Your task to perform on an android device: toggle location history Image 0: 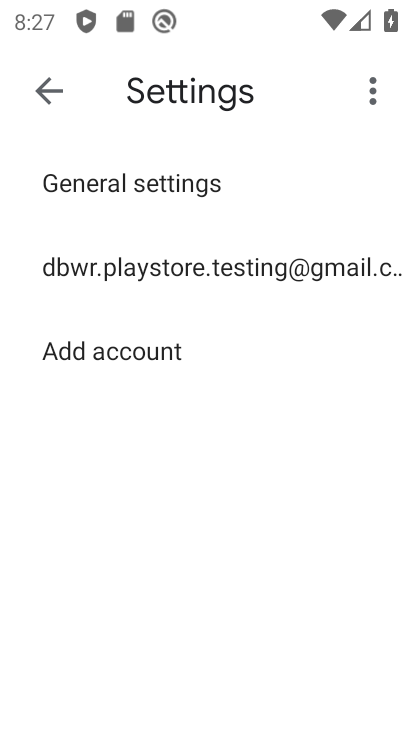
Step 0: press home button
Your task to perform on an android device: toggle location history Image 1: 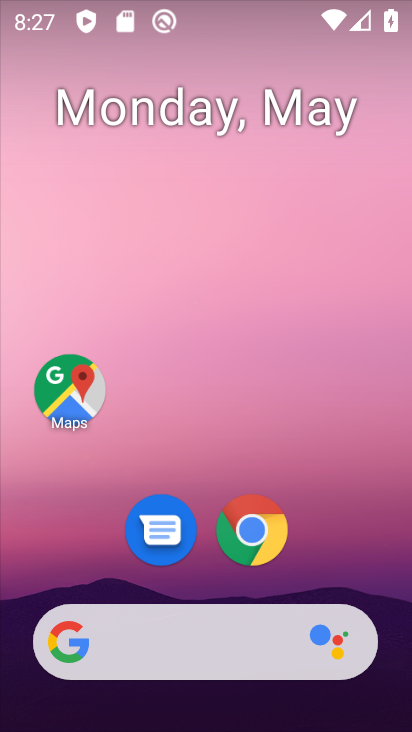
Step 1: click (86, 399)
Your task to perform on an android device: toggle location history Image 2: 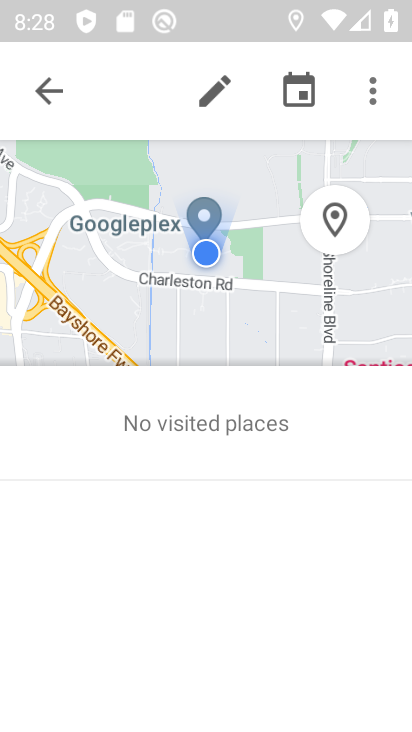
Step 2: click (364, 89)
Your task to perform on an android device: toggle location history Image 3: 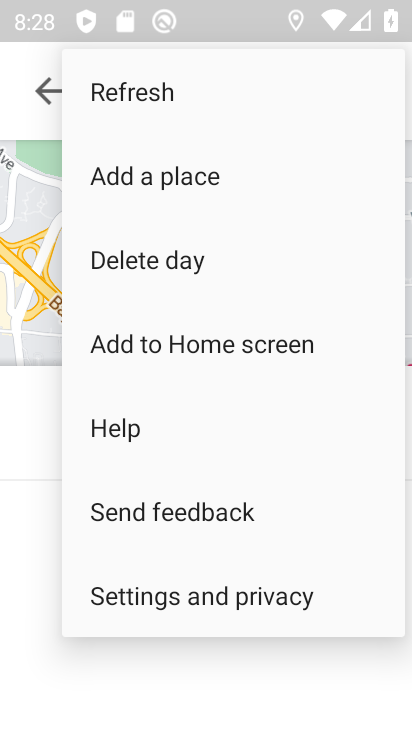
Step 3: click (204, 595)
Your task to perform on an android device: toggle location history Image 4: 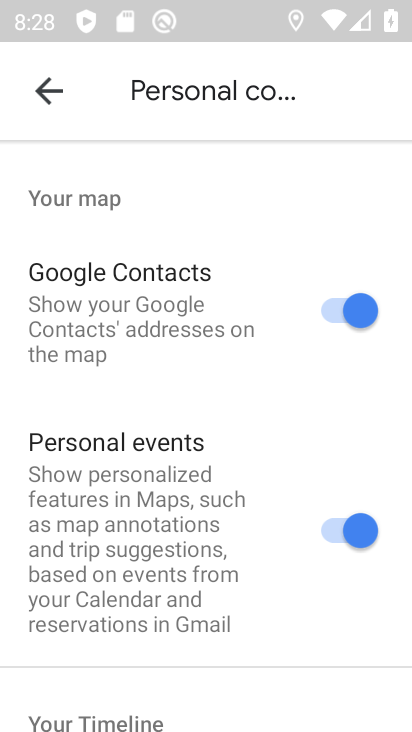
Step 4: drag from (236, 677) to (268, 56)
Your task to perform on an android device: toggle location history Image 5: 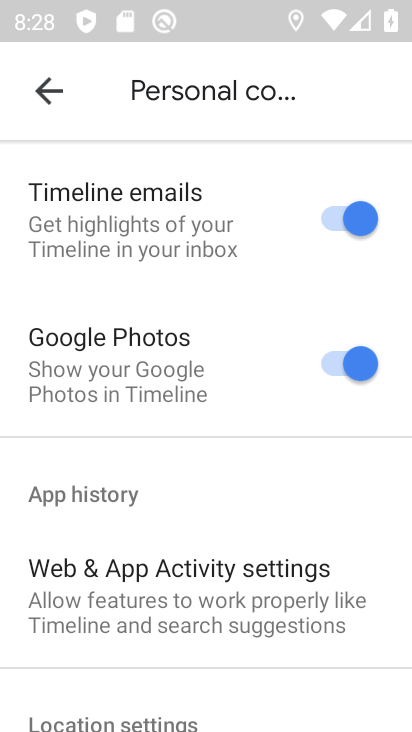
Step 5: drag from (193, 670) to (206, 127)
Your task to perform on an android device: toggle location history Image 6: 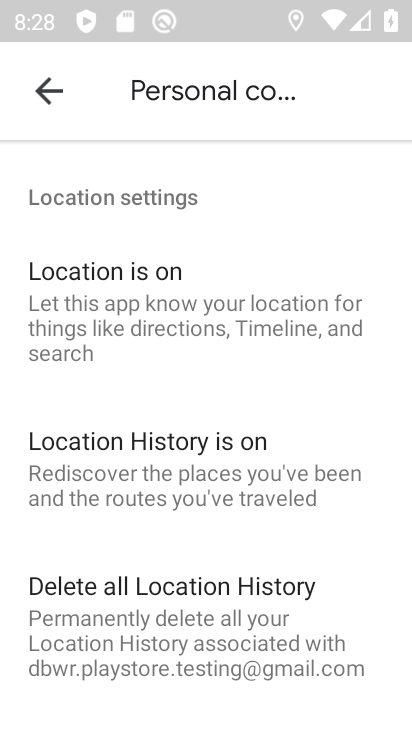
Step 6: click (188, 443)
Your task to perform on an android device: toggle location history Image 7: 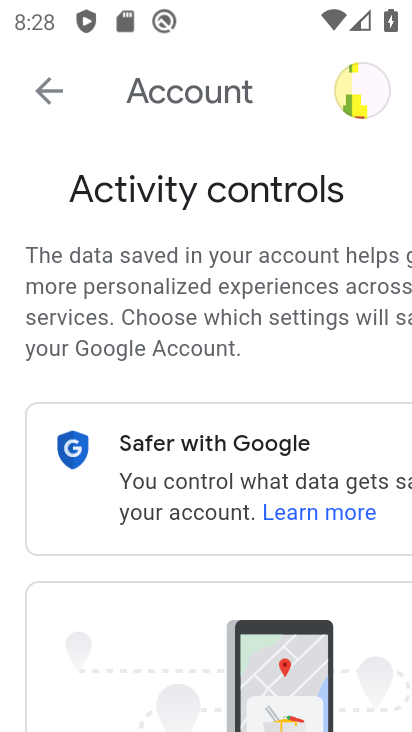
Step 7: drag from (225, 654) to (189, 120)
Your task to perform on an android device: toggle location history Image 8: 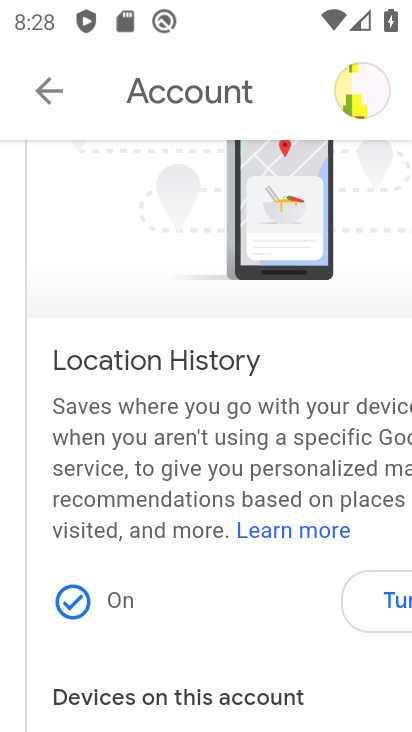
Step 8: click (388, 607)
Your task to perform on an android device: toggle location history Image 9: 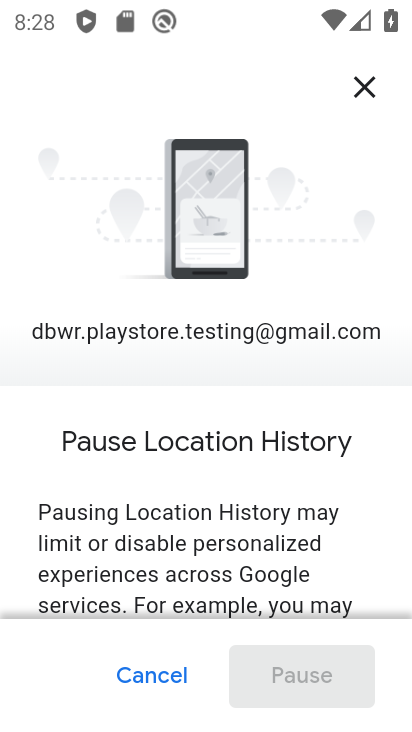
Step 9: drag from (342, 608) to (289, 70)
Your task to perform on an android device: toggle location history Image 10: 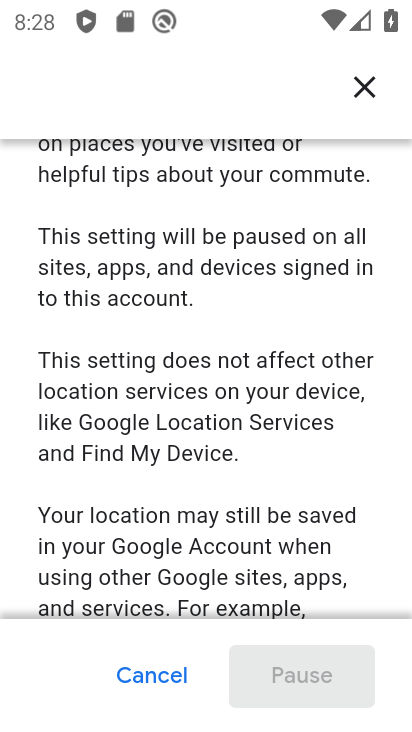
Step 10: drag from (253, 588) to (248, 139)
Your task to perform on an android device: toggle location history Image 11: 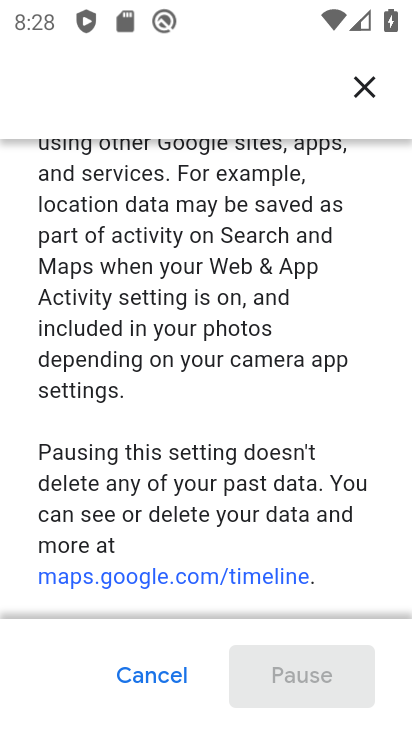
Step 11: drag from (304, 487) to (231, 83)
Your task to perform on an android device: toggle location history Image 12: 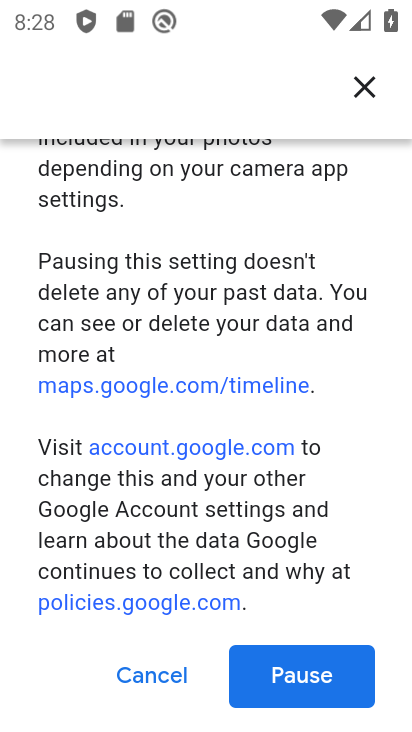
Step 12: click (300, 684)
Your task to perform on an android device: toggle location history Image 13: 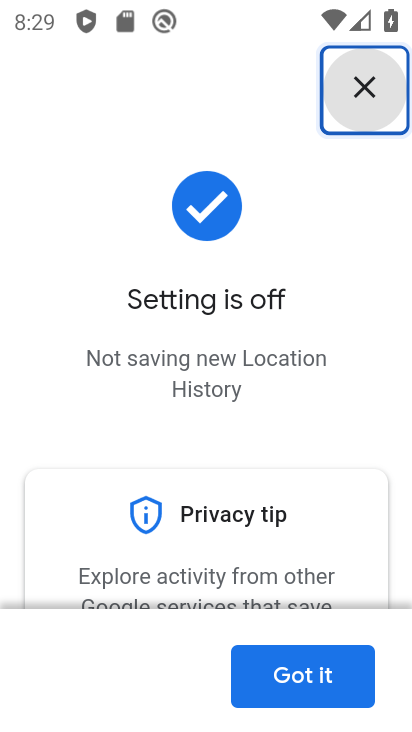
Step 13: click (300, 684)
Your task to perform on an android device: toggle location history Image 14: 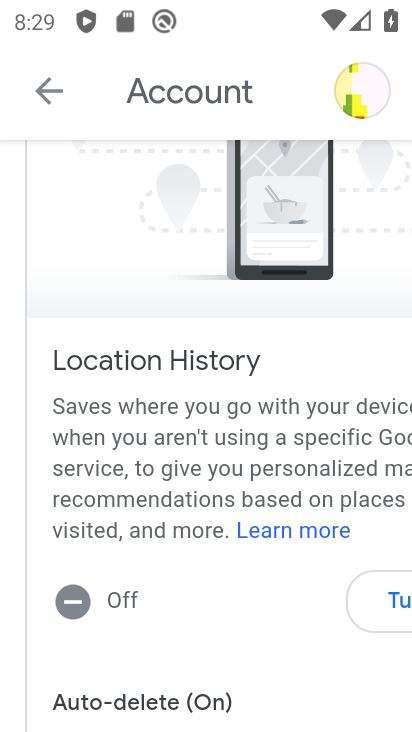
Step 14: task complete